Your task to perform on an android device: Open display settings Image 0: 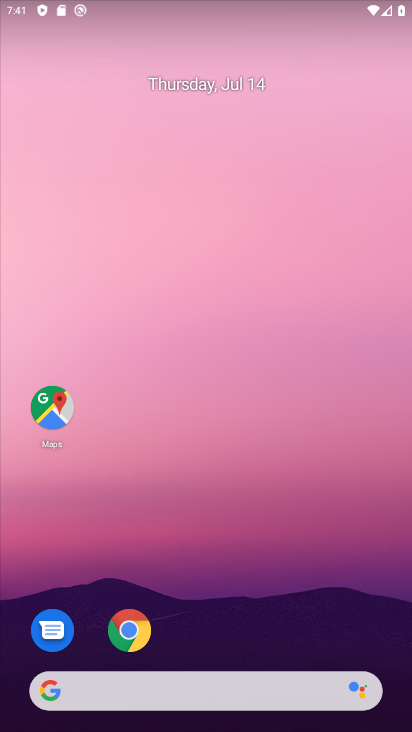
Step 0: drag from (214, 695) to (348, 20)
Your task to perform on an android device: Open display settings Image 1: 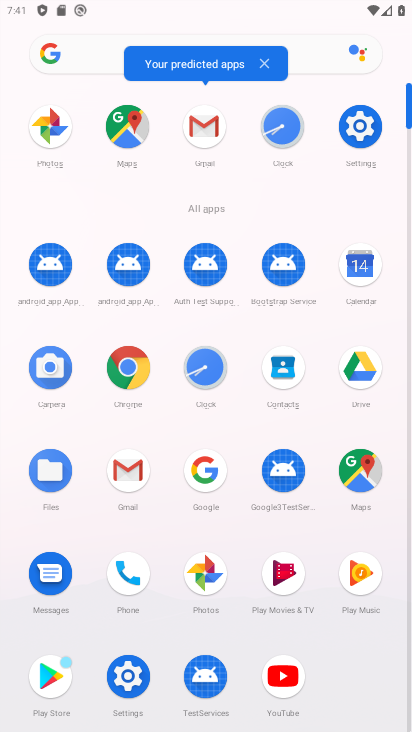
Step 1: click (135, 675)
Your task to perform on an android device: Open display settings Image 2: 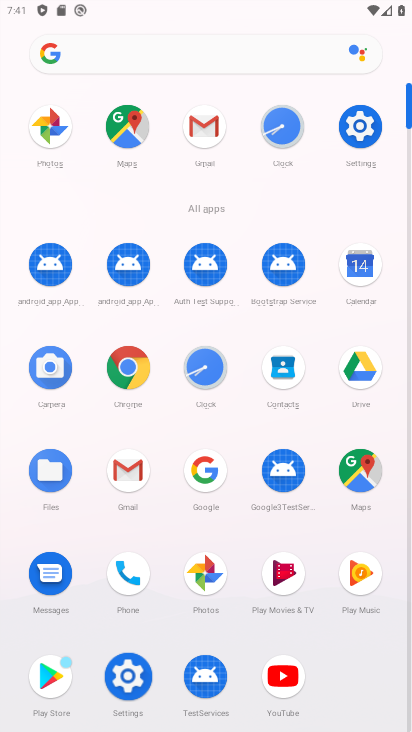
Step 2: click (134, 675)
Your task to perform on an android device: Open display settings Image 3: 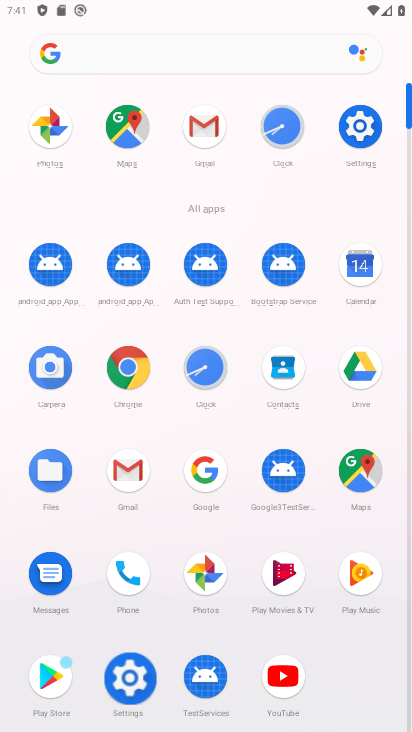
Step 3: click (134, 673)
Your task to perform on an android device: Open display settings Image 4: 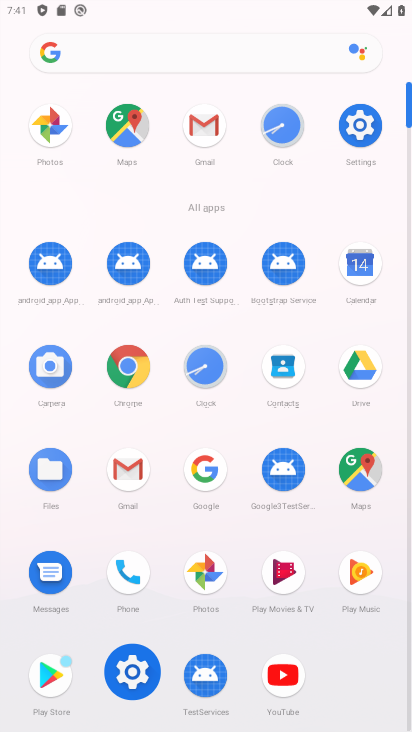
Step 4: click (139, 673)
Your task to perform on an android device: Open display settings Image 5: 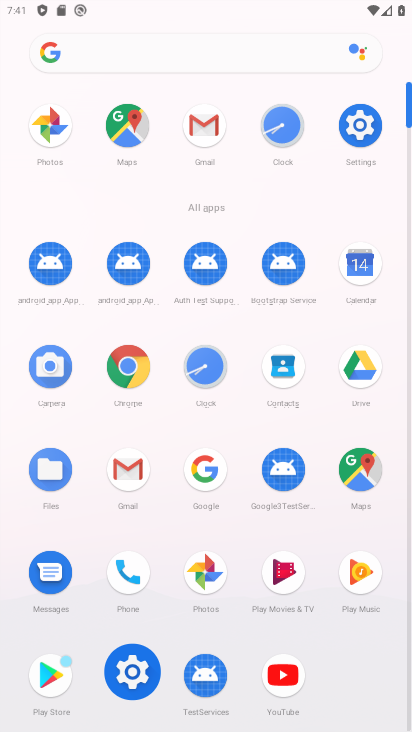
Step 5: click (139, 673)
Your task to perform on an android device: Open display settings Image 6: 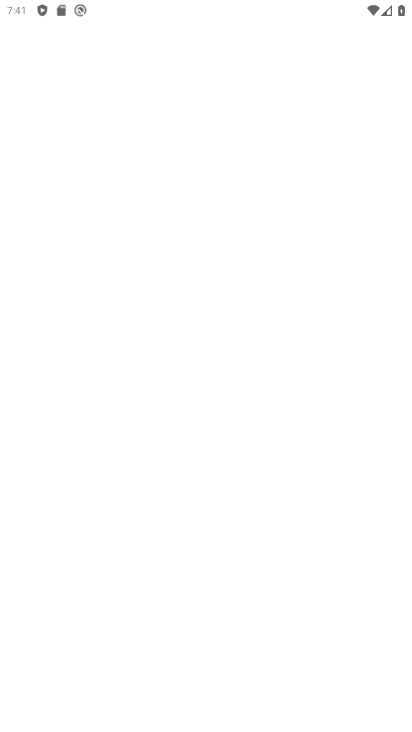
Step 6: click (132, 676)
Your task to perform on an android device: Open display settings Image 7: 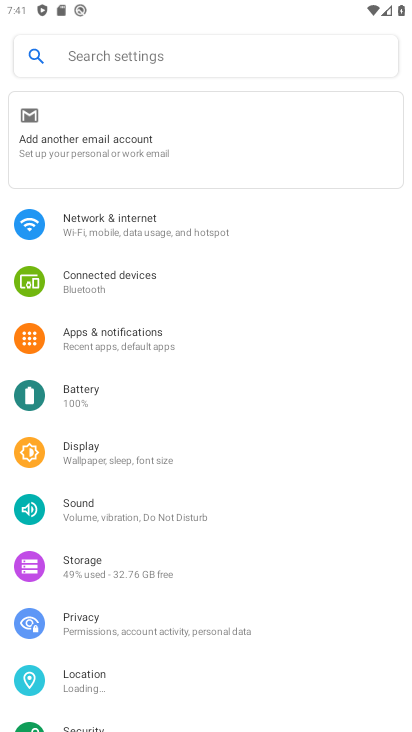
Step 7: click (95, 455)
Your task to perform on an android device: Open display settings Image 8: 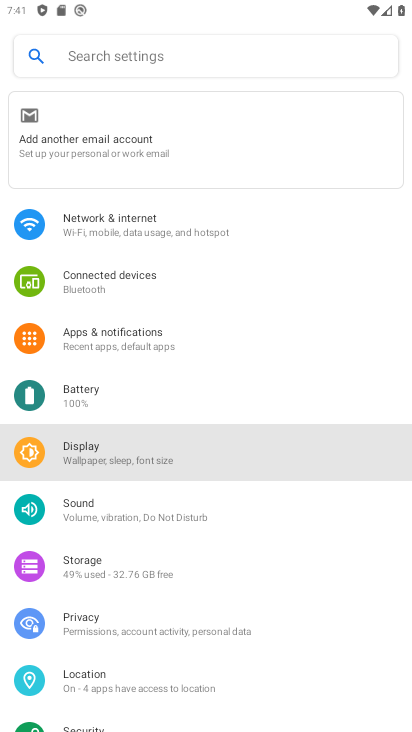
Step 8: click (94, 456)
Your task to perform on an android device: Open display settings Image 9: 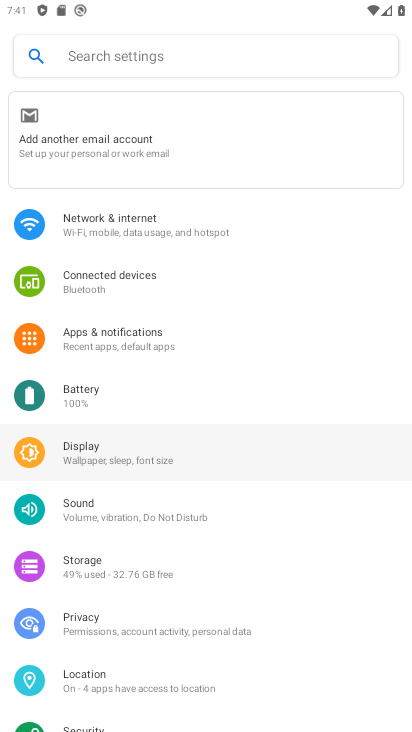
Step 9: click (94, 456)
Your task to perform on an android device: Open display settings Image 10: 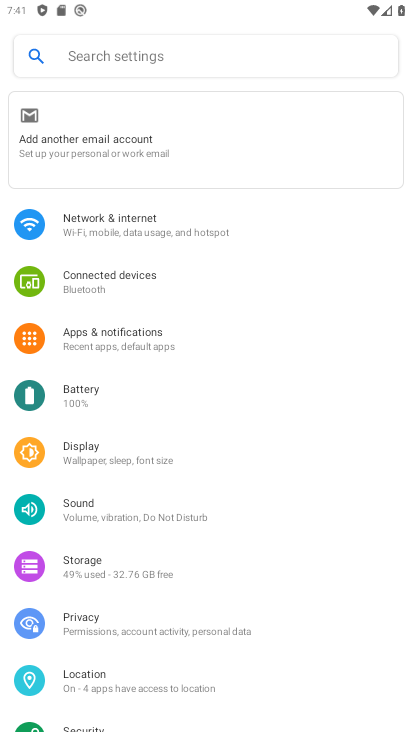
Step 10: click (94, 456)
Your task to perform on an android device: Open display settings Image 11: 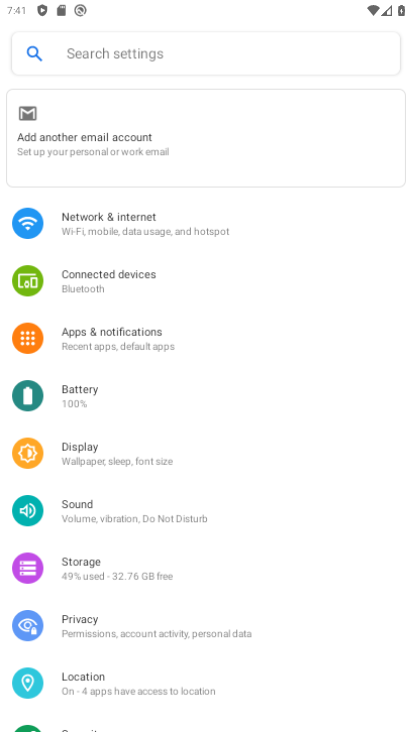
Step 11: click (94, 456)
Your task to perform on an android device: Open display settings Image 12: 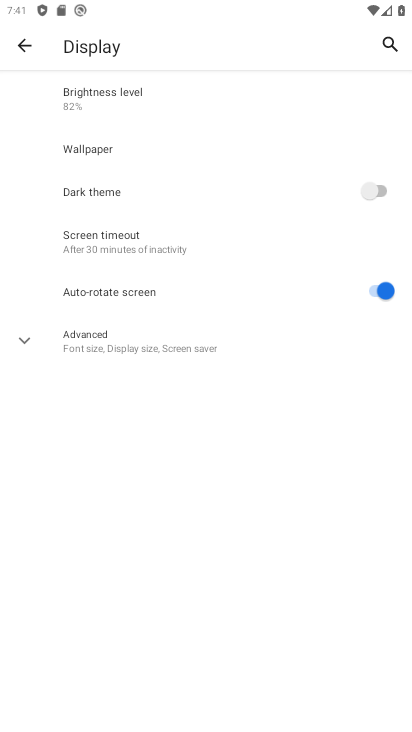
Step 12: click (94, 456)
Your task to perform on an android device: Open display settings Image 13: 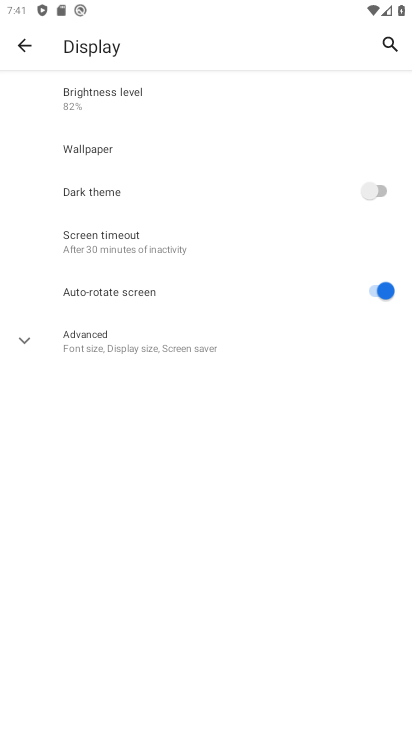
Step 13: click (95, 458)
Your task to perform on an android device: Open display settings Image 14: 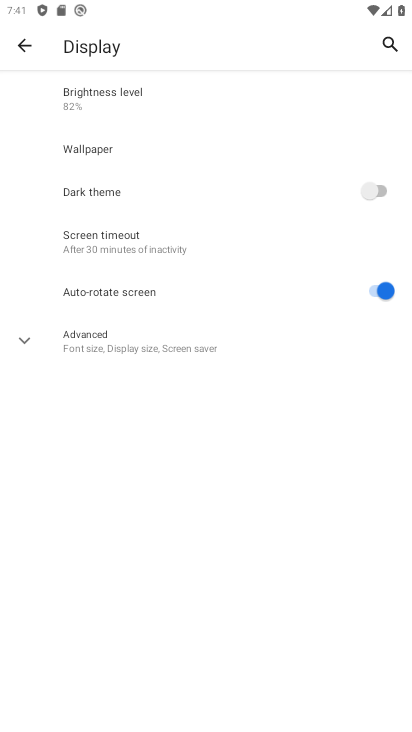
Step 14: task complete